Your task to perform on an android device: Open calendar and show me the first week of next month Image 0: 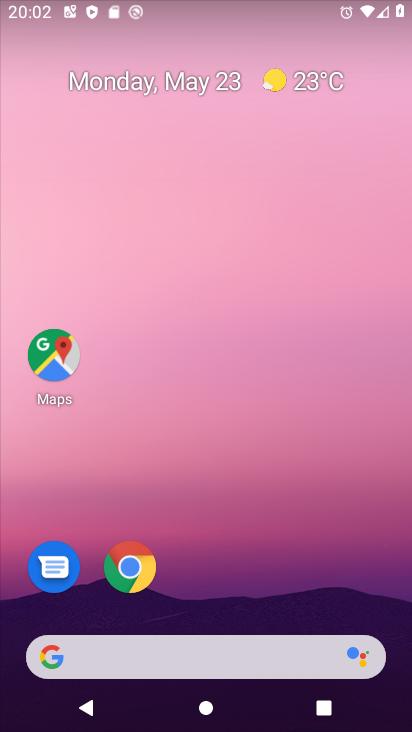
Step 0: drag from (292, 615) to (315, 253)
Your task to perform on an android device: Open calendar and show me the first week of next month Image 1: 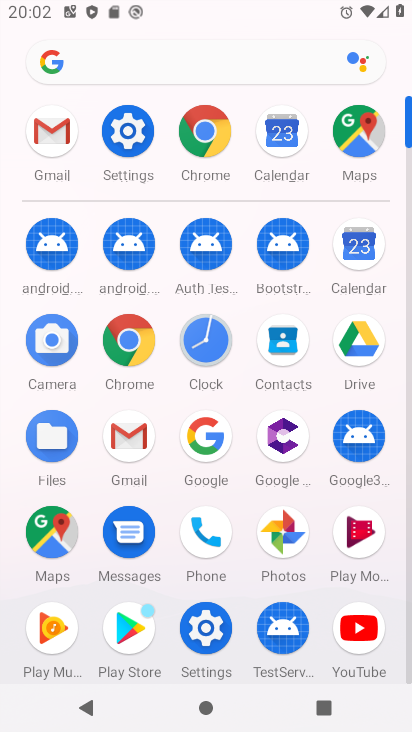
Step 1: click (356, 255)
Your task to perform on an android device: Open calendar and show me the first week of next month Image 2: 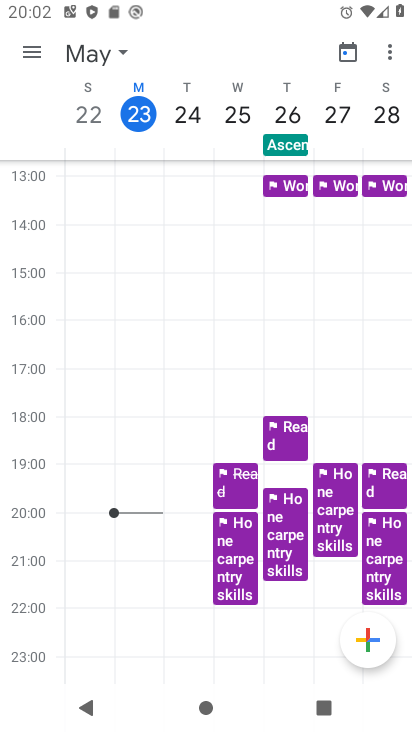
Step 2: click (35, 46)
Your task to perform on an android device: Open calendar and show me the first week of next month Image 3: 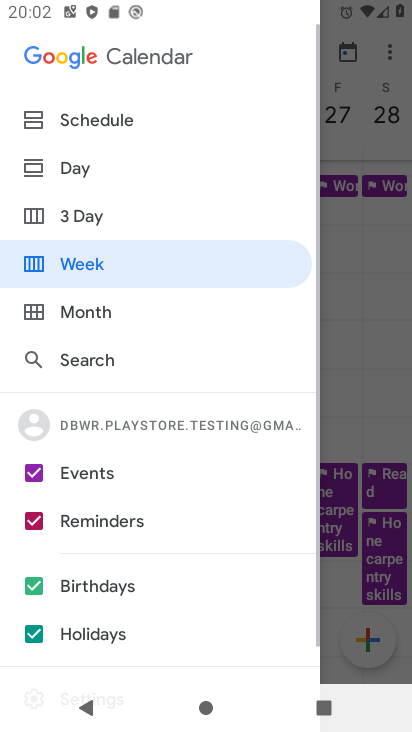
Step 3: click (375, 258)
Your task to perform on an android device: Open calendar and show me the first week of next month Image 4: 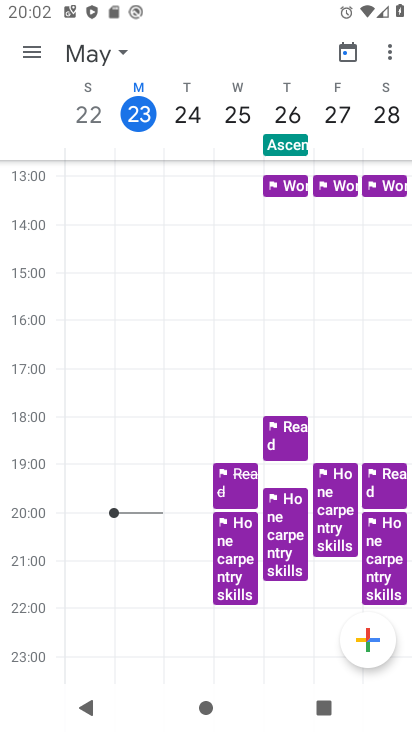
Step 4: task complete